Your task to perform on an android device: Search for seafood restaurants on Google Maps Image 0: 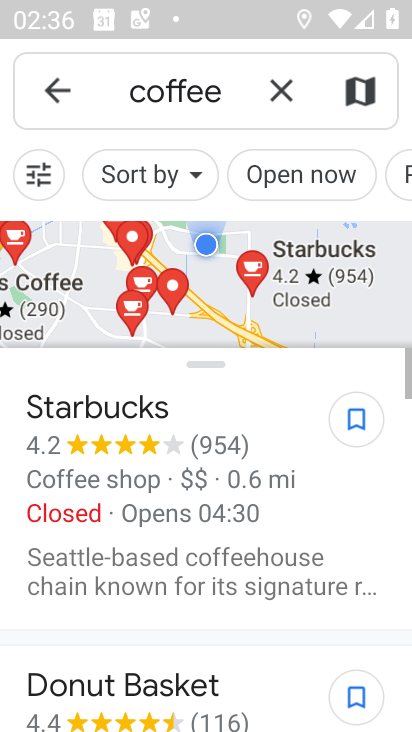
Step 0: click (271, 95)
Your task to perform on an android device: Search for seafood restaurants on Google Maps Image 1: 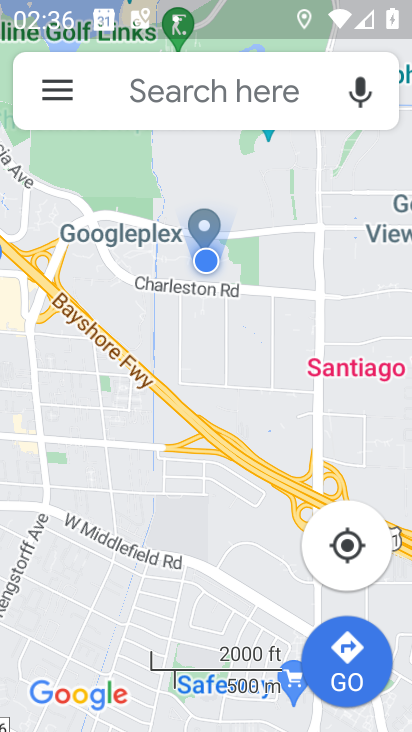
Step 1: click (138, 87)
Your task to perform on an android device: Search for seafood restaurants on Google Maps Image 2: 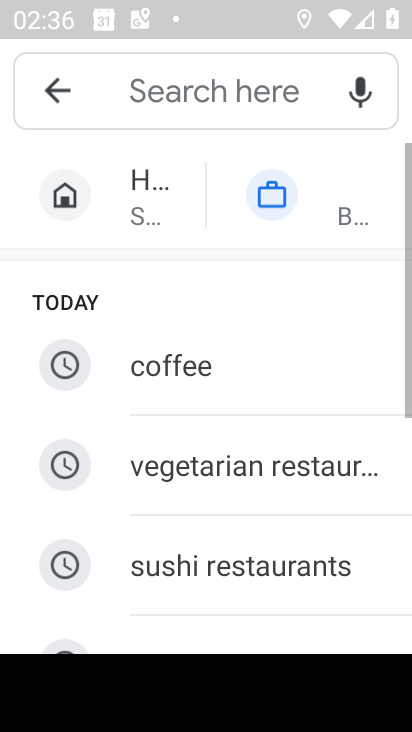
Step 2: drag from (190, 573) to (236, 387)
Your task to perform on an android device: Search for seafood restaurants on Google Maps Image 3: 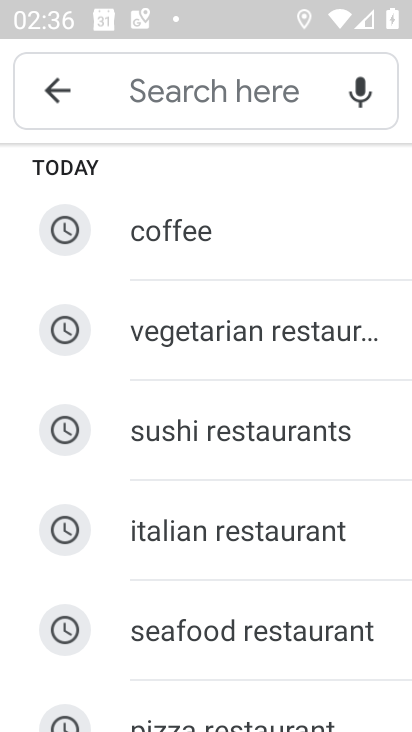
Step 3: click (195, 599)
Your task to perform on an android device: Search for seafood restaurants on Google Maps Image 4: 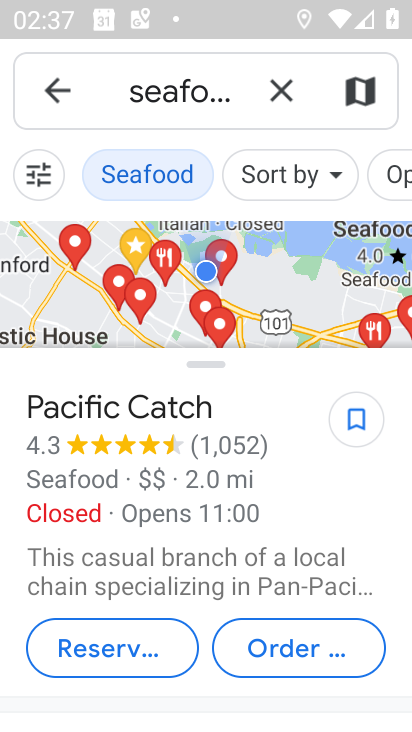
Step 4: task complete